Your task to perform on an android device: turn on priority inbox in the gmail app Image 0: 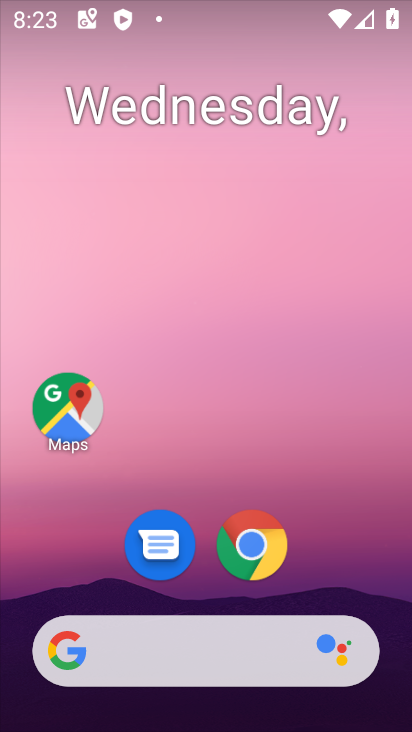
Step 0: drag from (229, 423) to (264, 33)
Your task to perform on an android device: turn on priority inbox in the gmail app Image 1: 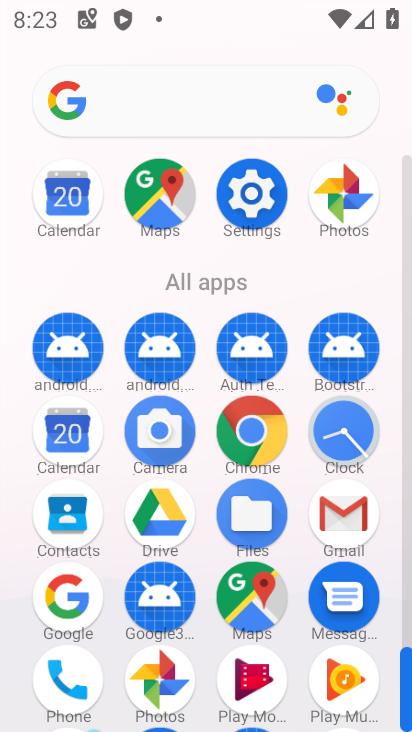
Step 1: click (332, 527)
Your task to perform on an android device: turn on priority inbox in the gmail app Image 2: 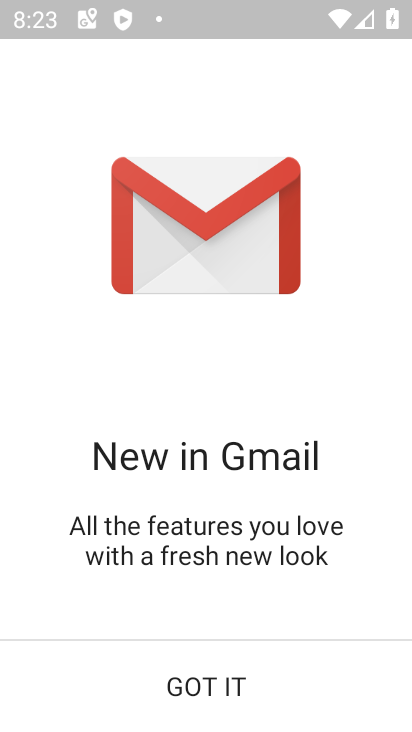
Step 2: click (223, 724)
Your task to perform on an android device: turn on priority inbox in the gmail app Image 3: 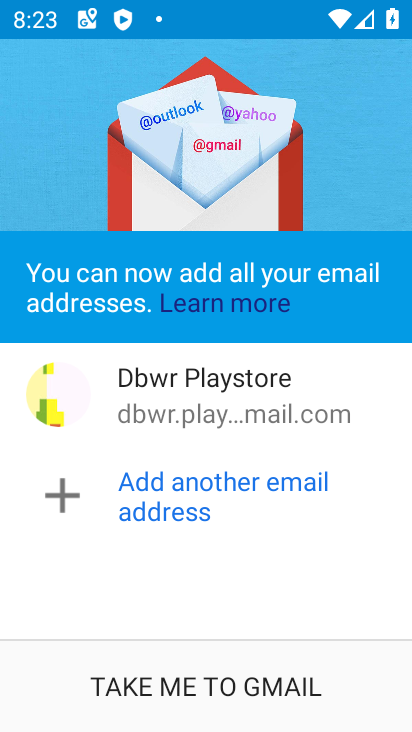
Step 3: click (227, 691)
Your task to perform on an android device: turn on priority inbox in the gmail app Image 4: 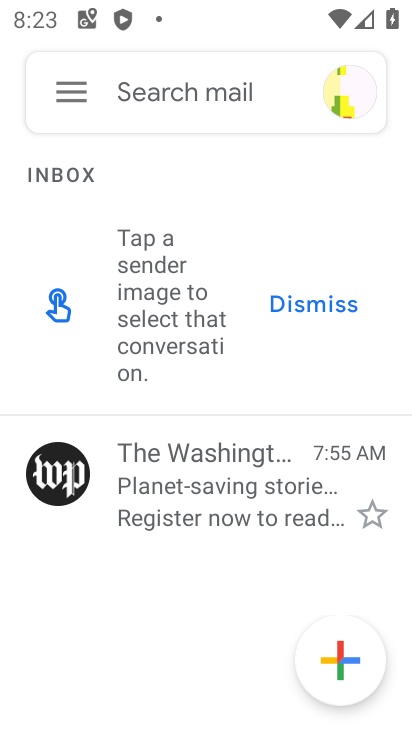
Step 4: click (82, 90)
Your task to perform on an android device: turn on priority inbox in the gmail app Image 5: 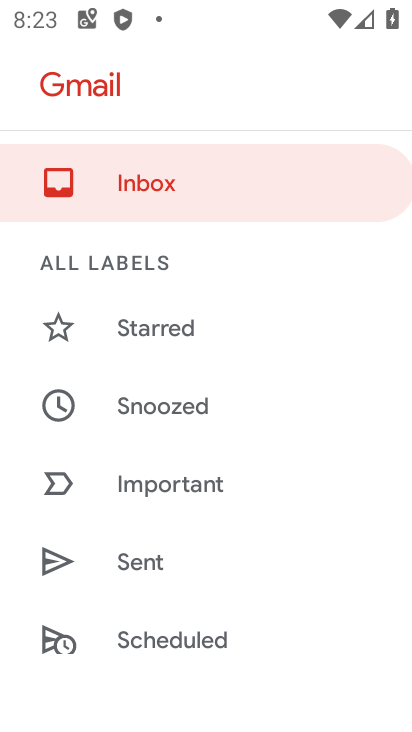
Step 5: drag from (132, 561) to (273, 67)
Your task to perform on an android device: turn on priority inbox in the gmail app Image 6: 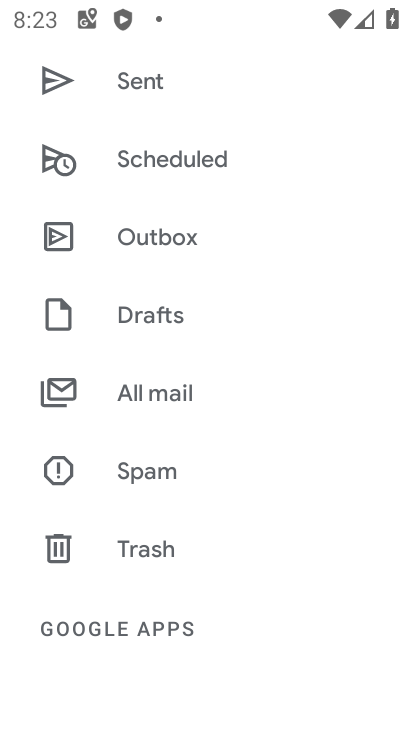
Step 6: drag from (198, 532) to (260, 29)
Your task to perform on an android device: turn on priority inbox in the gmail app Image 7: 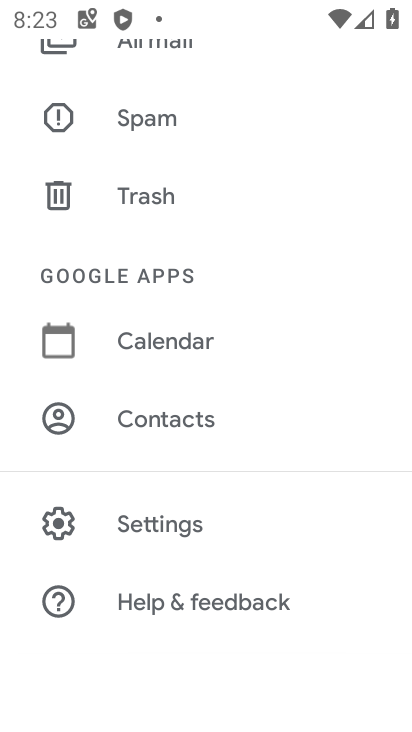
Step 7: click (142, 533)
Your task to perform on an android device: turn on priority inbox in the gmail app Image 8: 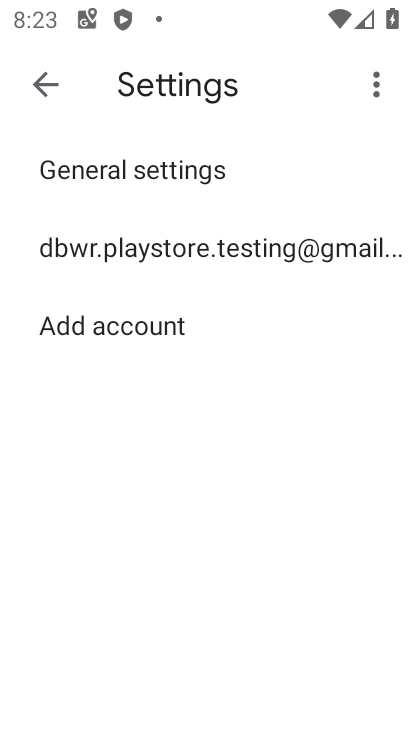
Step 8: click (136, 244)
Your task to perform on an android device: turn on priority inbox in the gmail app Image 9: 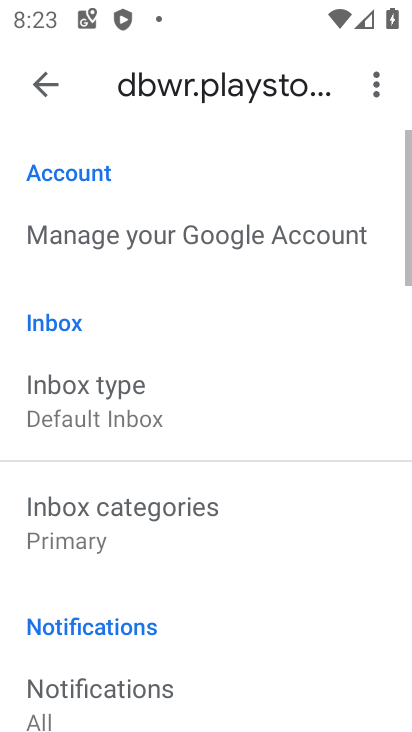
Step 9: click (78, 399)
Your task to perform on an android device: turn on priority inbox in the gmail app Image 10: 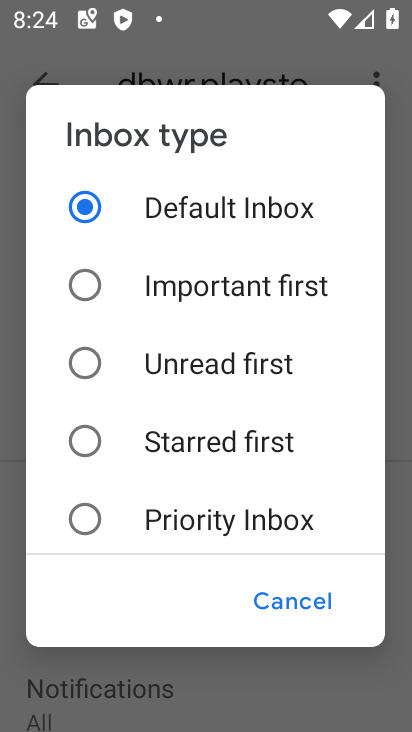
Step 10: click (94, 510)
Your task to perform on an android device: turn on priority inbox in the gmail app Image 11: 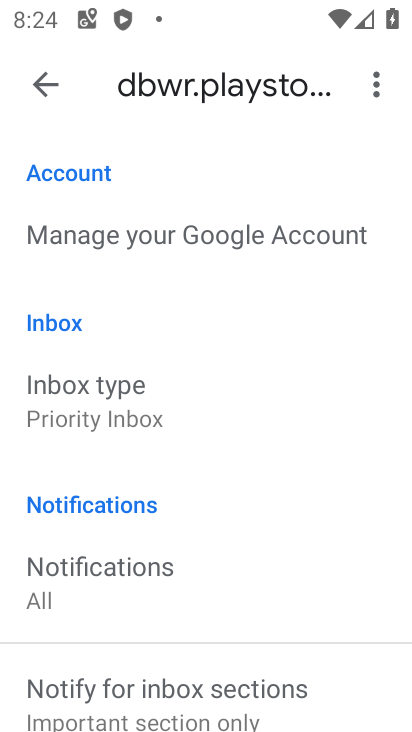
Step 11: task complete